Your task to perform on an android device: turn on sleep mode Image 0: 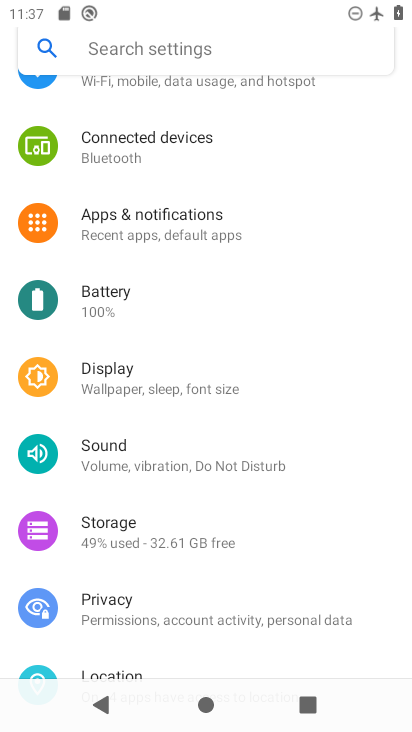
Step 0: drag from (192, 211) to (185, 435)
Your task to perform on an android device: turn on sleep mode Image 1: 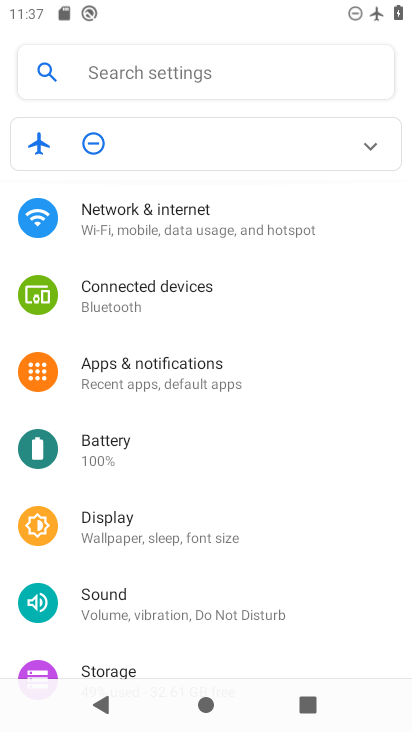
Step 1: click (166, 529)
Your task to perform on an android device: turn on sleep mode Image 2: 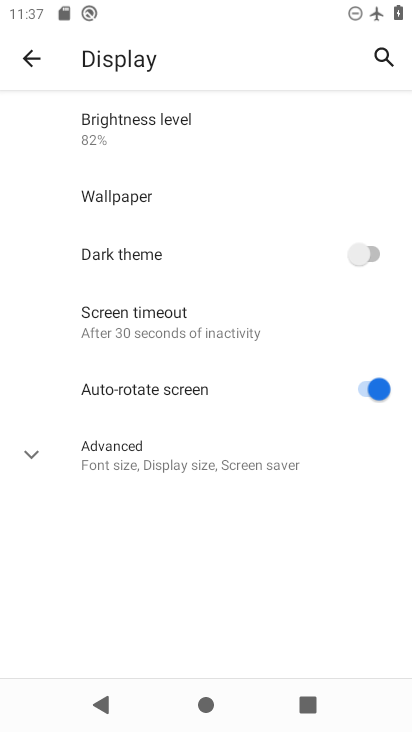
Step 2: click (172, 346)
Your task to perform on an android device: turn on sleep mode Image 3: 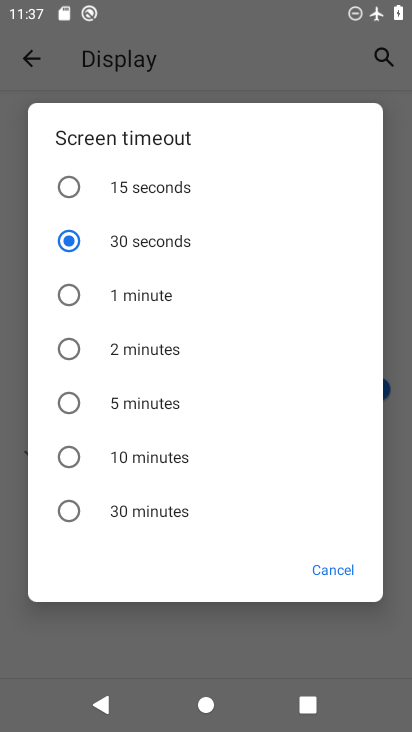
Step 3: click (172, 346)
Your task to perform on an android device: turn on sleep mode Image 4: 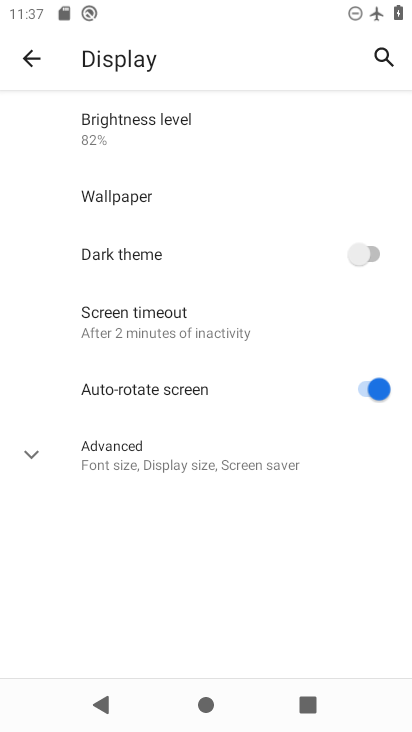
Step 4: task complete